Your task to perform on an android device: turn on sleep mode Image 0: 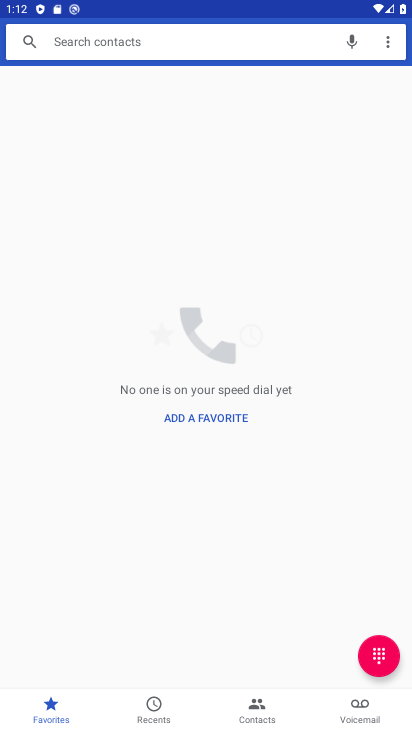
Step 0: press home button
Your task to perform on an android device: turn on sleep mode Image 1: 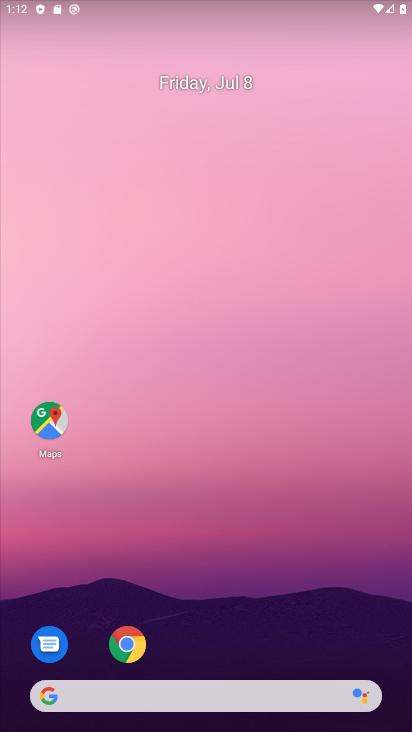
Step 1: drag from (275, 590) to (233, 129)
Your task to perform on an android device: turn on sleep mode Image 2: 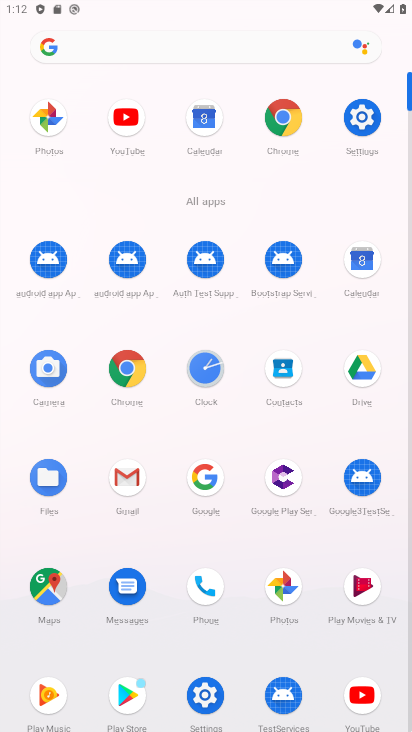
Step 2: click (358, 123)
Your task to perform on an android device: turn on sleep mode Image 3: 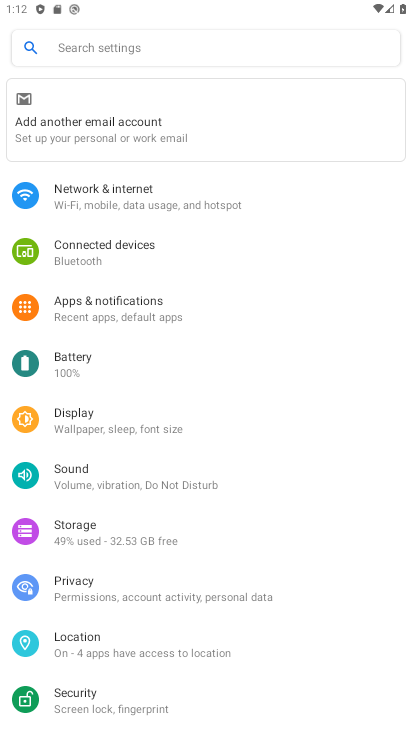
Step 3: click (120, 425)
Your task to perform on an android device: turn on sleep mode Image 4: 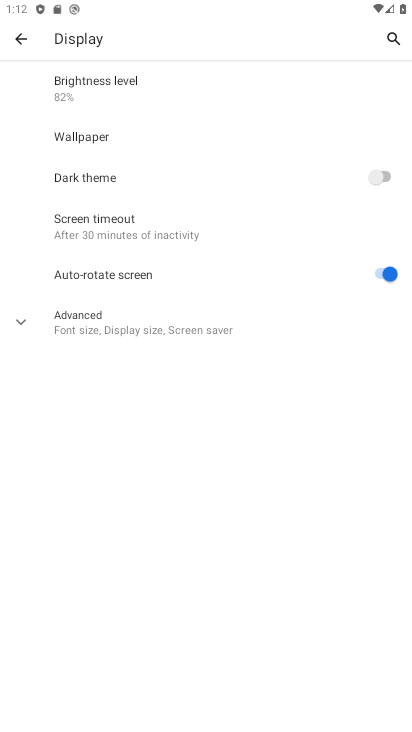
Step 4: click (26, 322)
Your task to perform on an android device: turn on sleep mode Image 5: 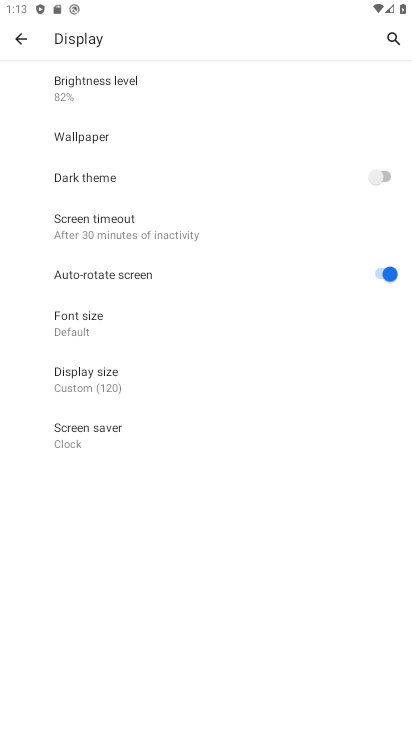
Step 5: task complete